Your task to perform on an android device: manage bookmarks in the chrome app Image 0: 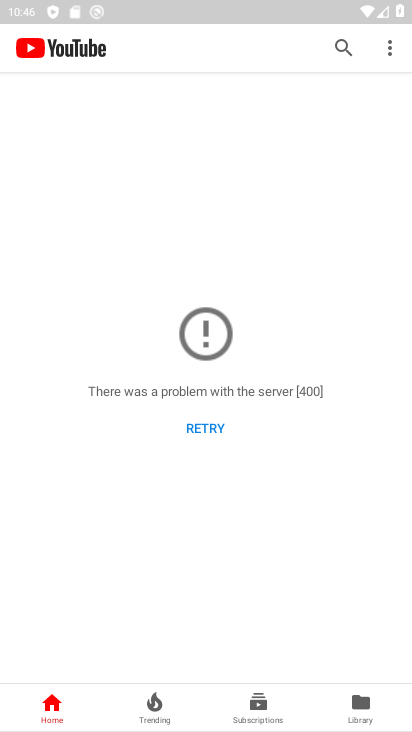
Step 0: press back button
Your task to perform on an android device: manage bookmarks in the chrome app Image 1: 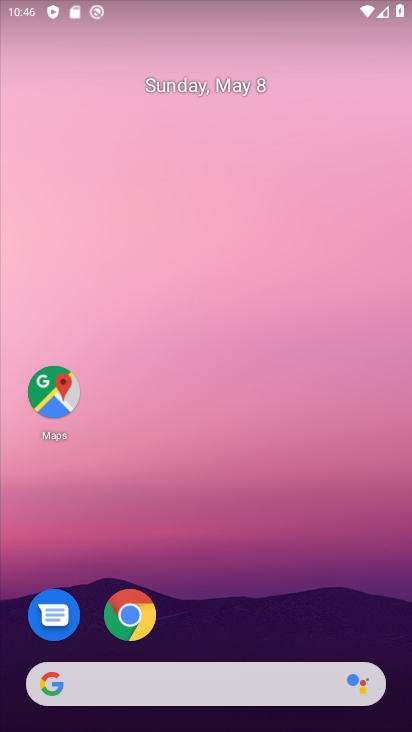
Step 1: click (131, 622)
Your task to perform on an android device: manage bookmarks in the chrome app Image 2: 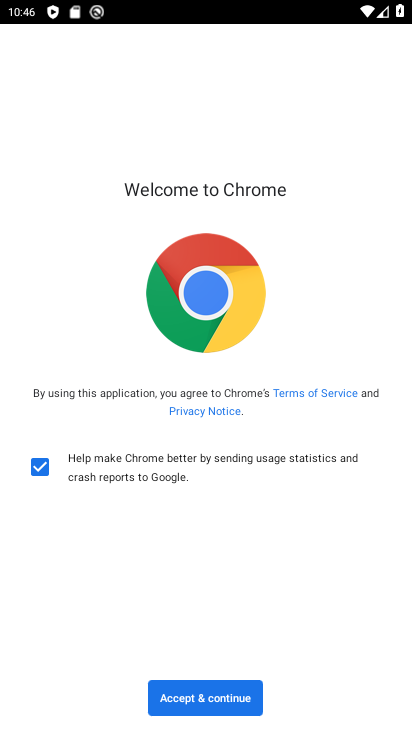
Step 2: click (222, 706)
Your task to perform on an android device: manage bookmarks in the chrome app Image 3: 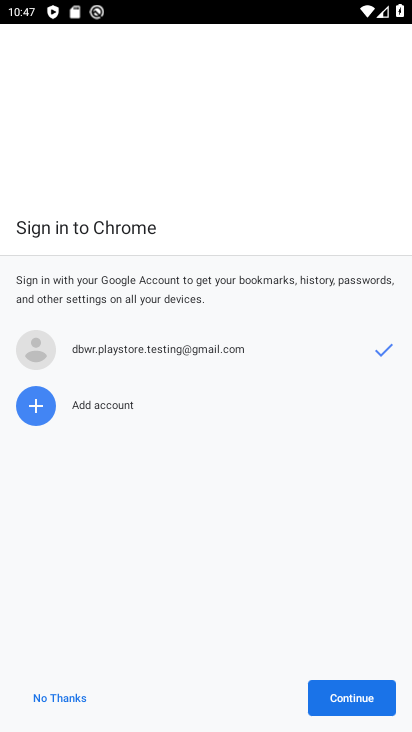
Step 3: click (355, 708)
Your task to perform on an android device: manage bookmarks in the chrome app Image 4: 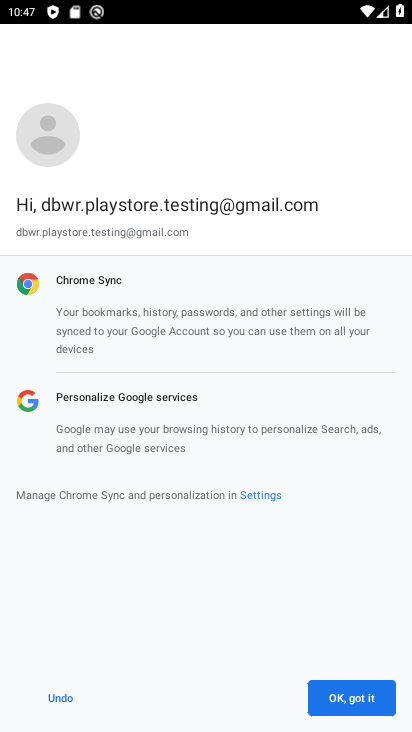
Step 4: click (355, 708)
Your task to perform on an android device: manage bookmarks in the chrome app Image 5: 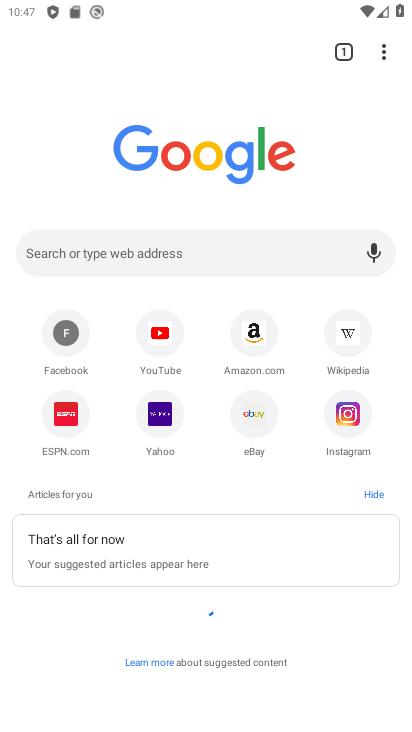
Step 5: task complete